Your task to perform on an android device: make emails show in primary in the gmail app Image 0: 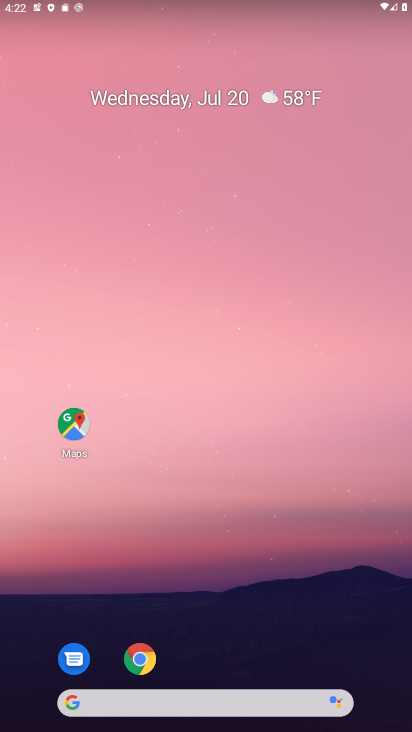
Step 0: drag from (117, 418) to (100, 225)
Your task to perform on an android device: make emails show in primary in the gmail app Image 1: 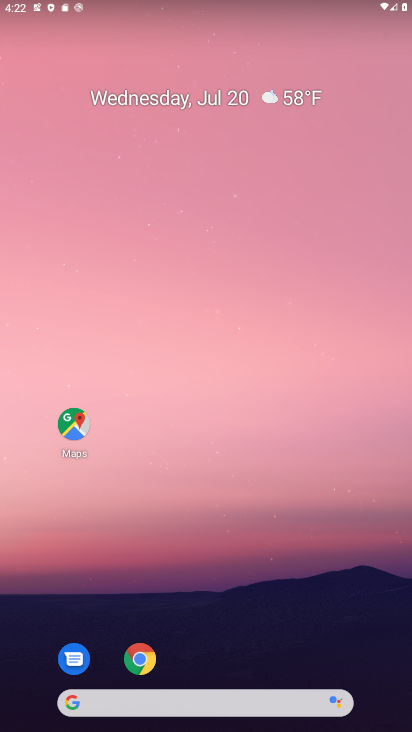
Step 1: drag from (237, 568) to (129, 78)
Your task to perform on an android device: make emails show in primary in the gmail app Image 2: 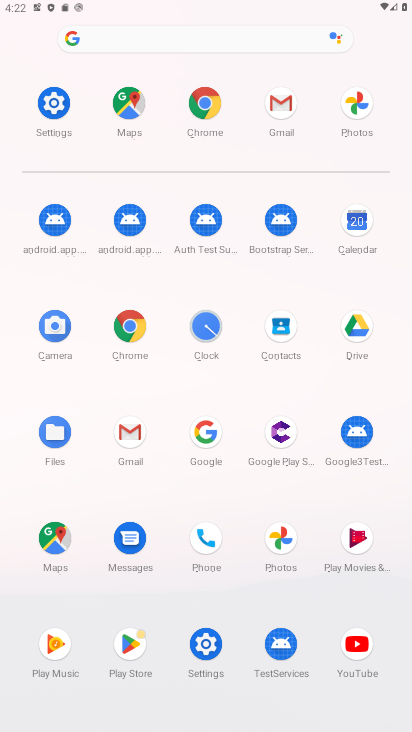
Step 2: click (139, 434)
Your task to perform on an android device: make emails show in primary in the gmail app Image 3: 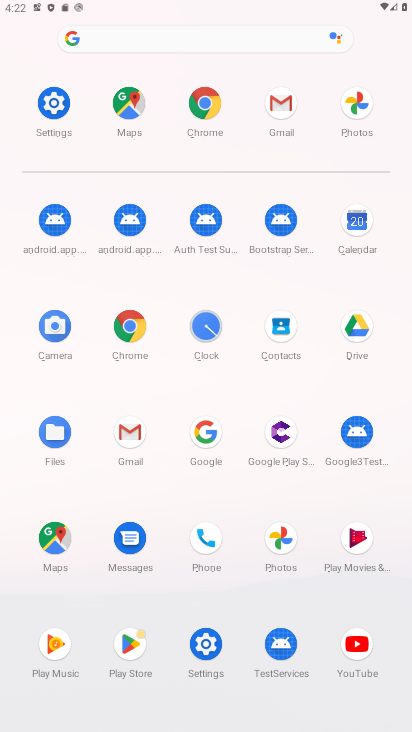
Step 3: click (139, 434)
Your task to perform on an android device: make emails show in primary in the gmail app Image 4: 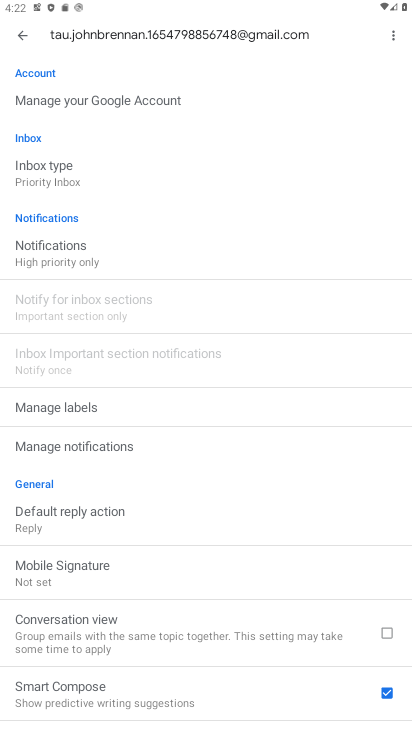
Step 4: click (35, 178)
Your task to perform on an android device: make emails show in primary in the gmail app Image 5: 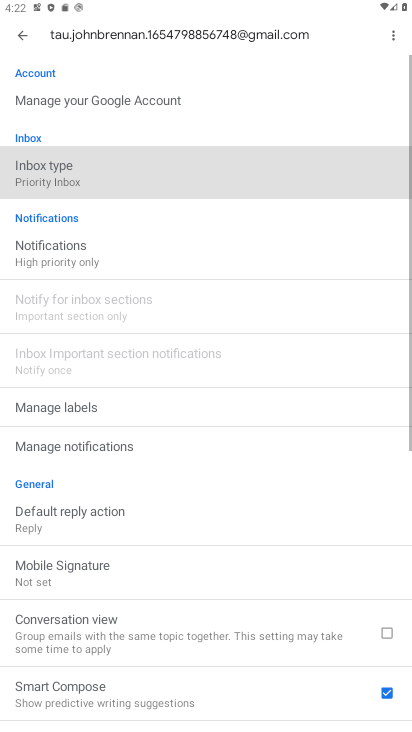
Step 5: click (36, 177)
Your task to perform on an android device: make emails show in primary in the gmail app Image 6: 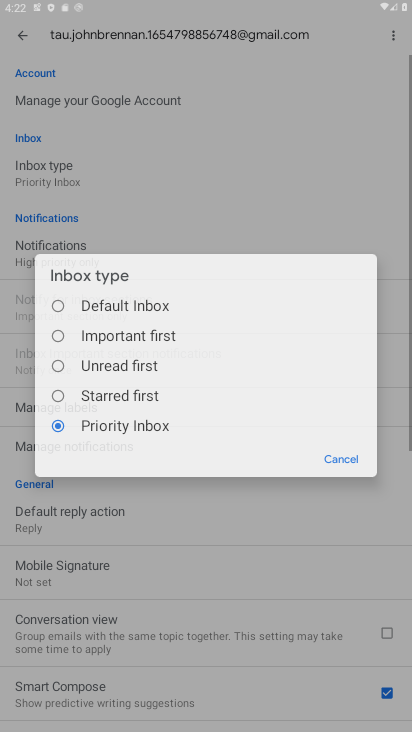
Step 6: click (38, 175)
Your task to perform on an android device: make emails show in primary in the gmail app Image 7: 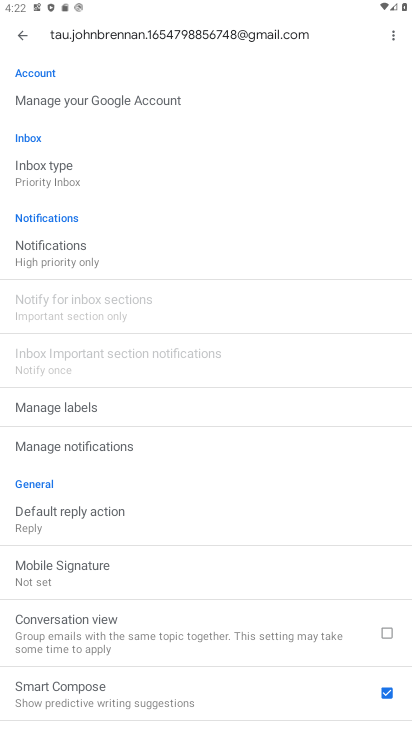
Step 7: click (31, 171)
Your task to perform on an android device: make emails show in primary in the gmail app Image 8: 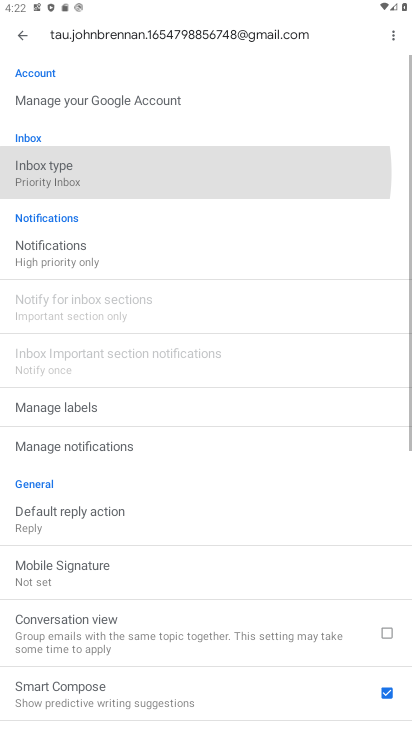
Step 8: click (32, 171)
Your task to perform on an android device: make emails show in primary in the gmail app Image 9: 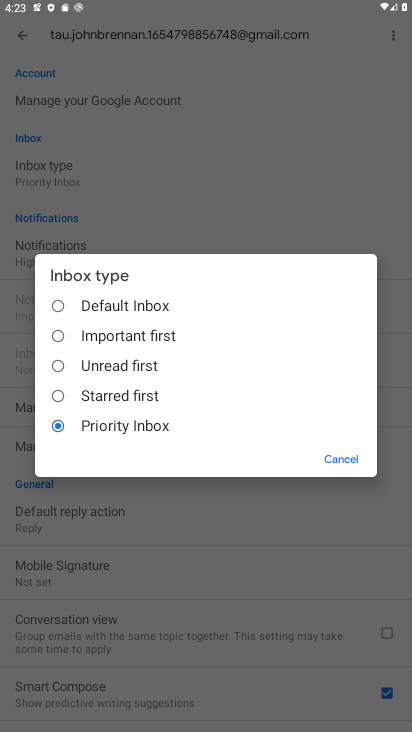
Step 9: click (50, 307)
Your task to perform on an android device: make emails show in primary in the gmail app Image 10: 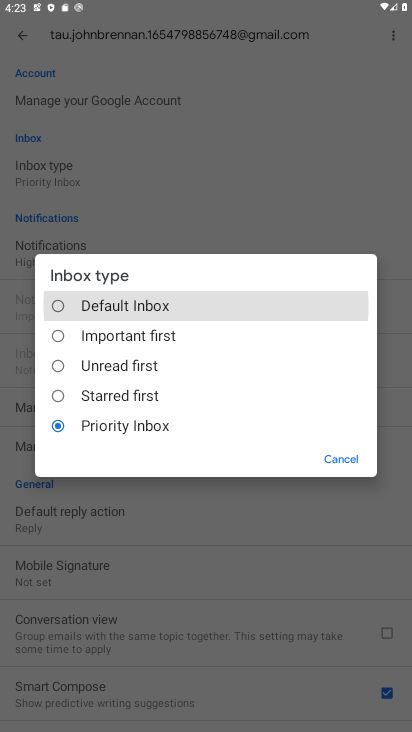
Step 10: click (53, 304)
Your task to perform on an android device: make emails show in primary in the gmail app Image 11: 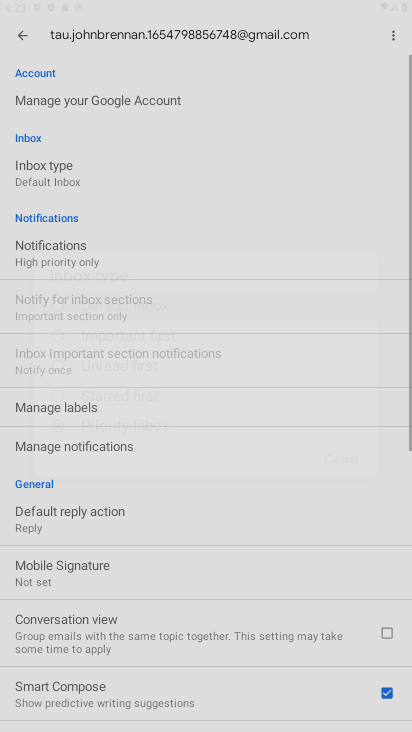
Step 11: click (59, 302)
Your task to perform on an android device: make emails show in primary in the gmail app Image 12: 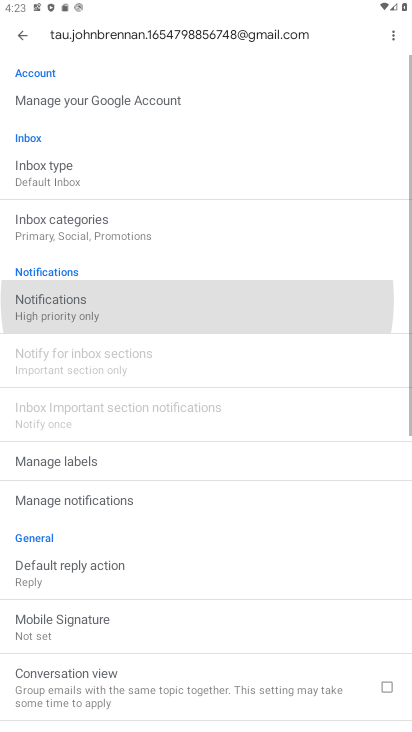
Step 12: click (66, 296)
Your task to perform on an android device: make emails show in primary in the gmail app Image 13: 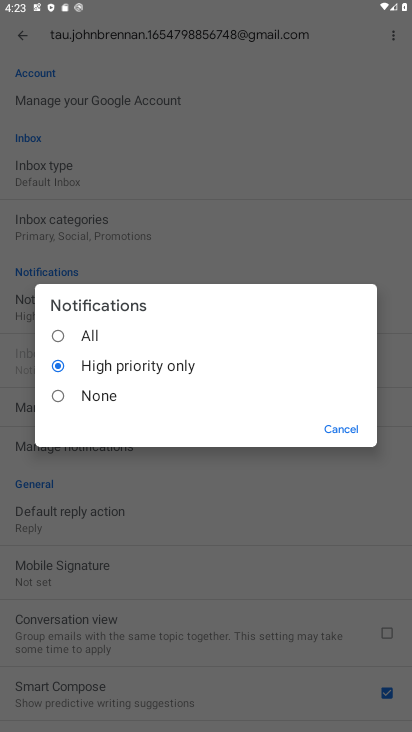
Step 13: click (318, 430)
Your task to perform on an android device: make emails show in primary in the gmail app Image 14: 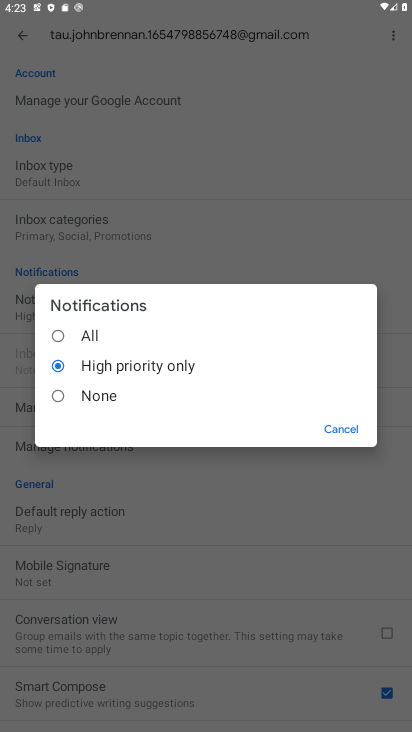
Step 14: click (351, 420)
Your task to perform on an android device: make emails show in primary in the gmail app Image 15: 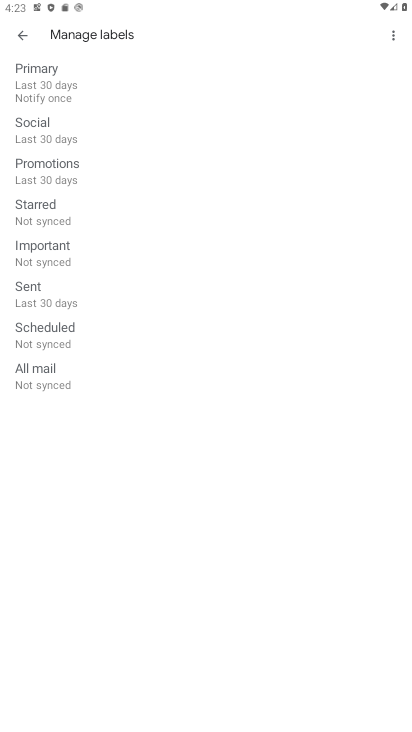
Step 15: task complete